Your task to perform on an android device: turn off data saver in the chrome app Image 0: 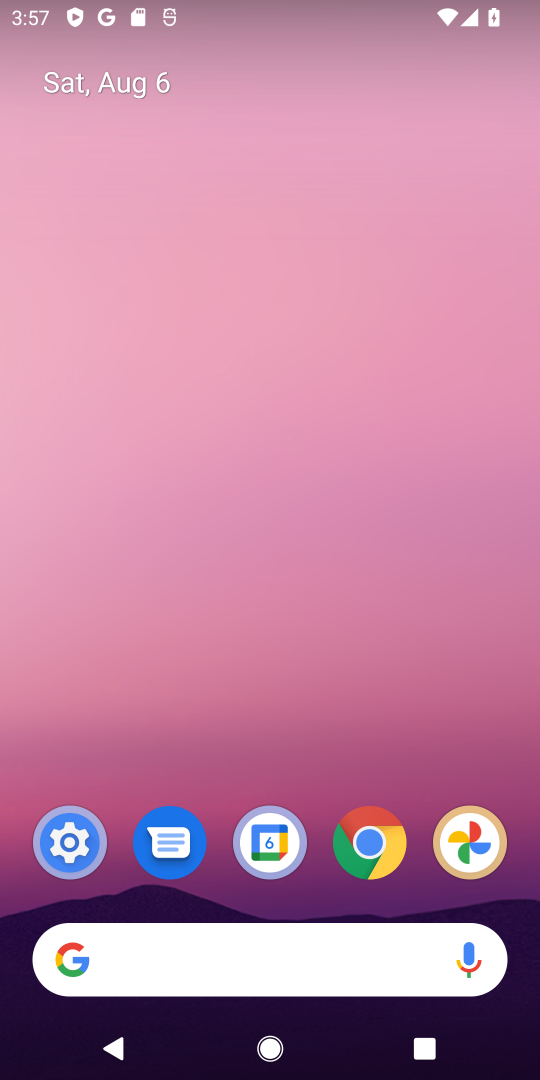
Step 0: click (349, 843)
Your task to perform on an android device: turn off data saver in the chrome app Image 1: 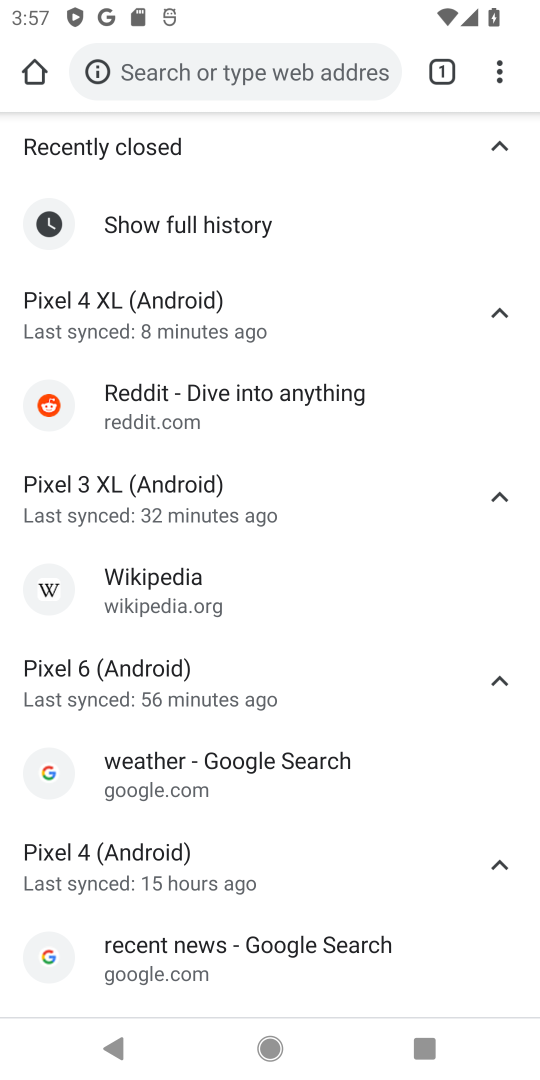
Step 1: click (495, 70)
Your task to perform on an android device: turn off data saver in the chrome app Image 2: 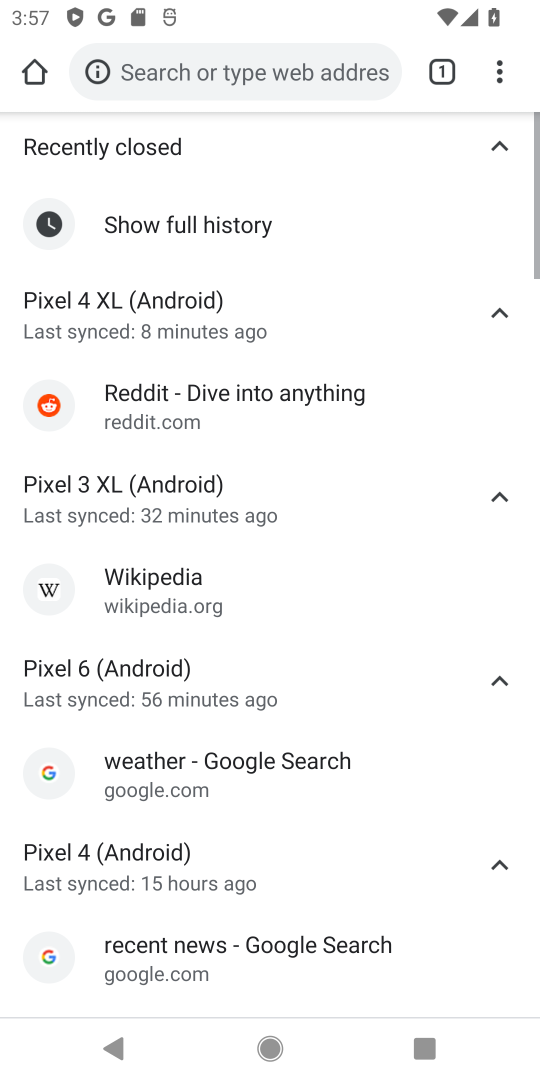
Step 2: click (499, 69)
Your task to perform on an android device: turn off data saver in the chrome app Image 3: 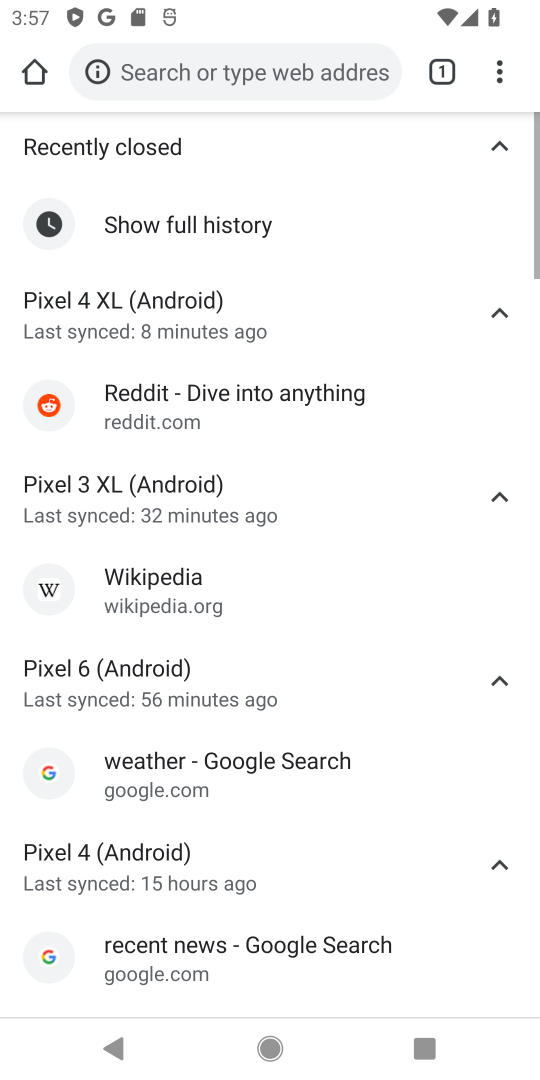
Step 3: click (499, 69)
Your task to perform on an android device: turn off data saver in the chrome app Image 4: 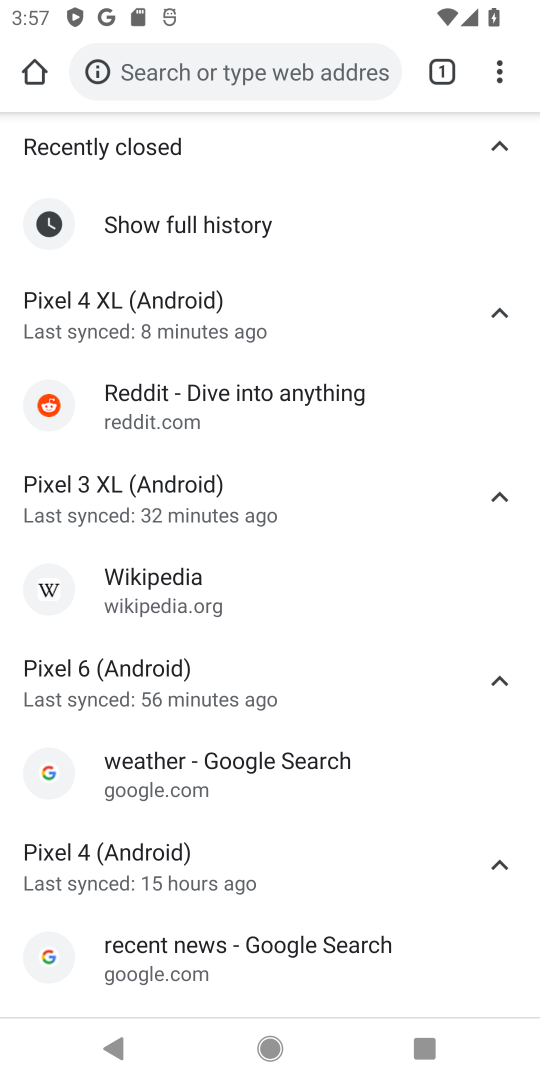
Step 4: click (499, 69)
Your task to perform on an android device: turn off data saver in the chrome app Image 5: 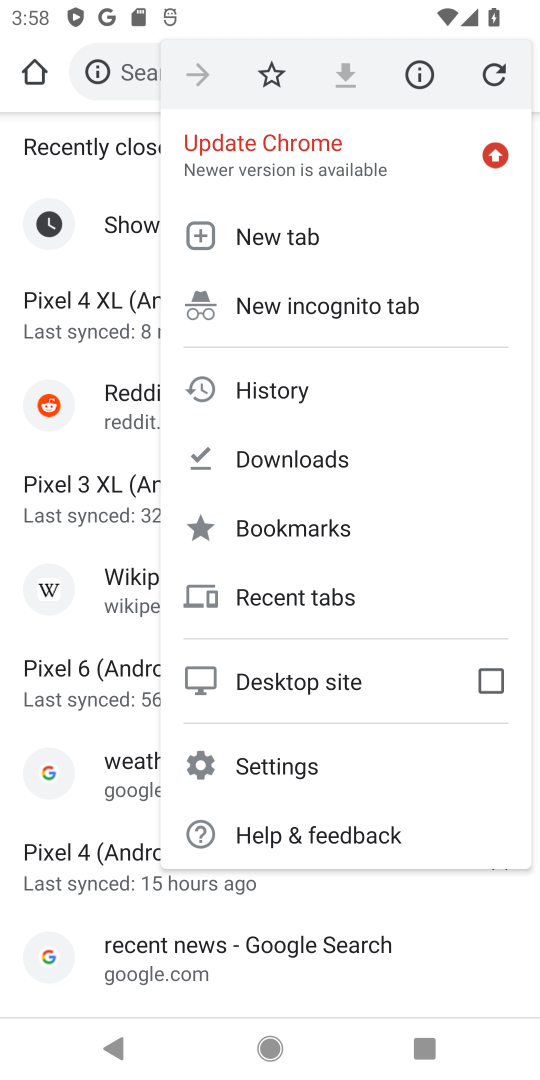
Step 5: click (264, 759)
Your task to perform on an android device: turn off data saver in the chrome app Image 6: 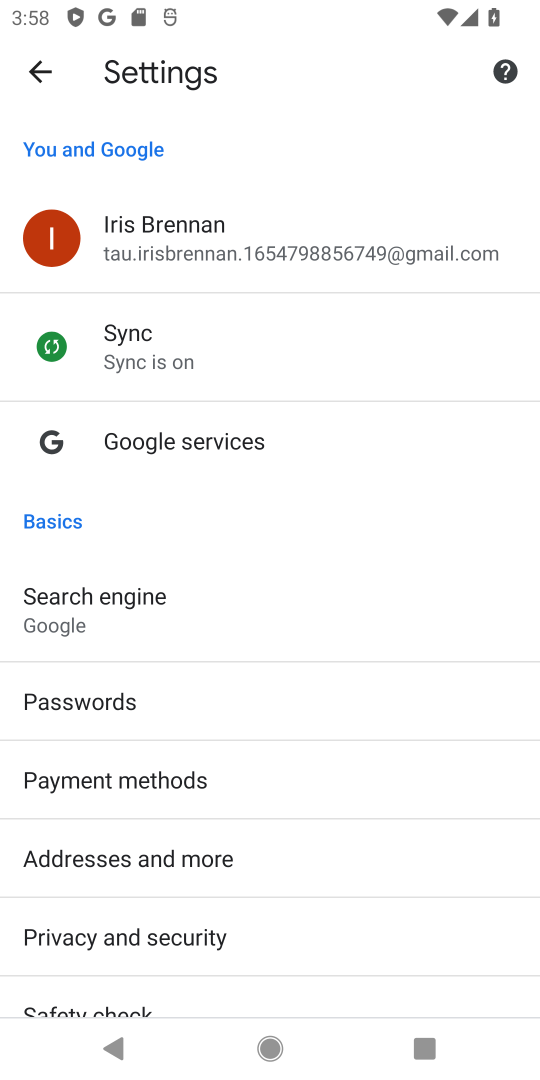
Step 6: drag from (348, 949) to (337, 400)
Your task to perform on an android device: turn off data saver in the chrome app Image 7: 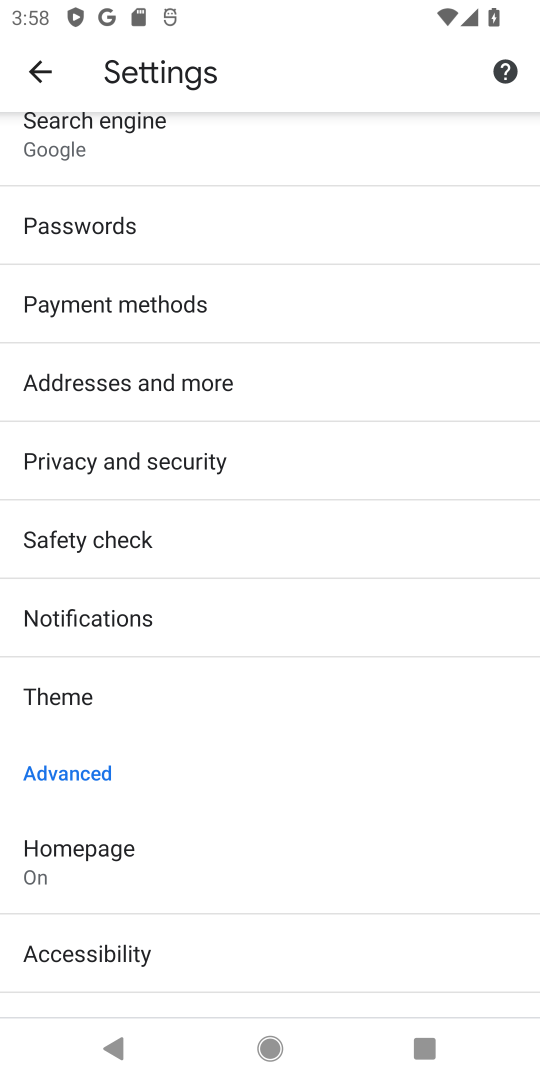
Step 7: drag from (341, 777) to (360, 459)
Your task to perform on an android device: turn off data saver in the chrome app Image 8: 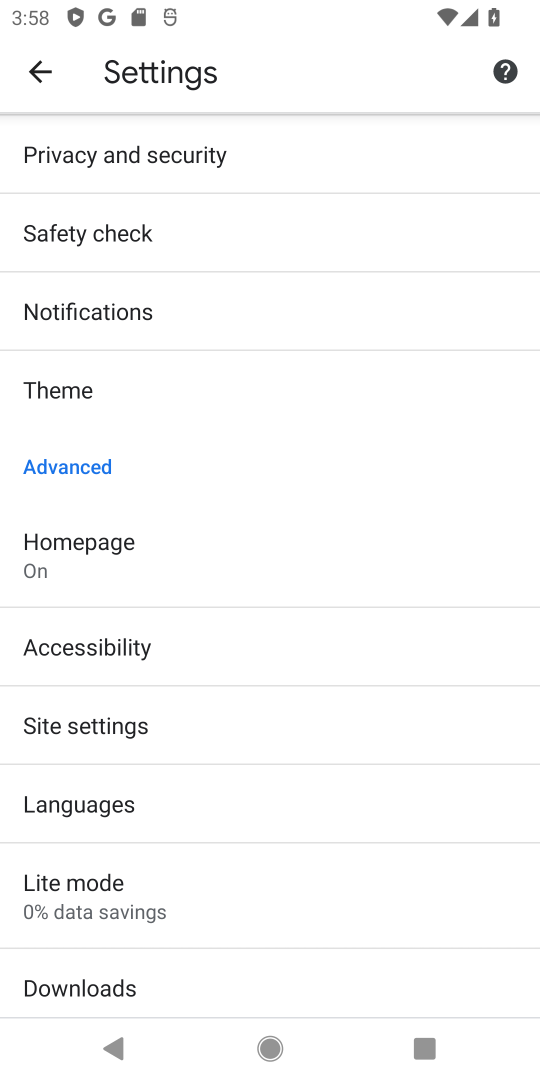
Step 8: click (96, 883)
Your task to perform on an android device: turn off data saver in the chrome app Image 9: 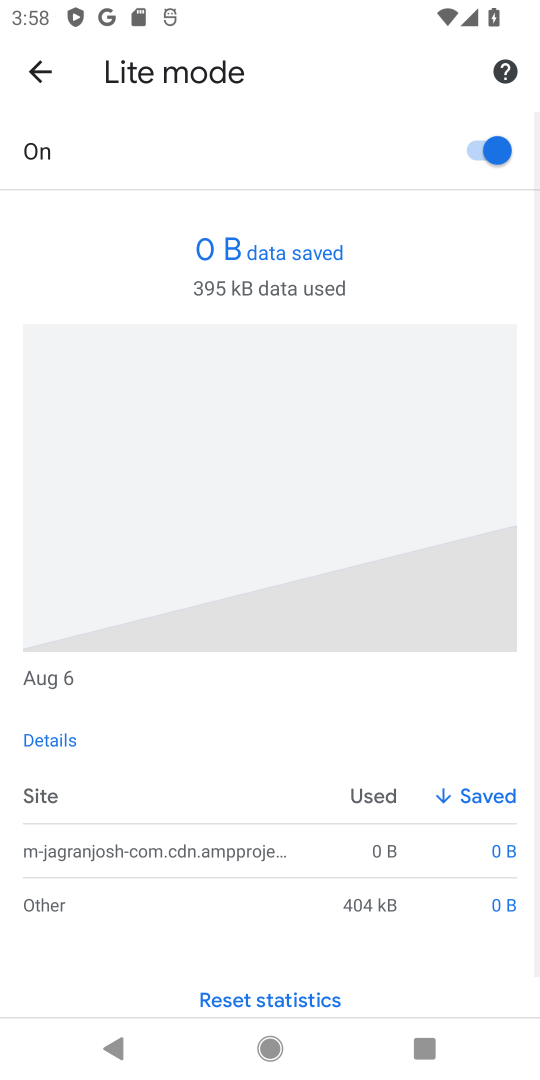
Step 9: click (469, 155)
Your task to perform on an android device: turn off data saver in the chrome app Image 10: 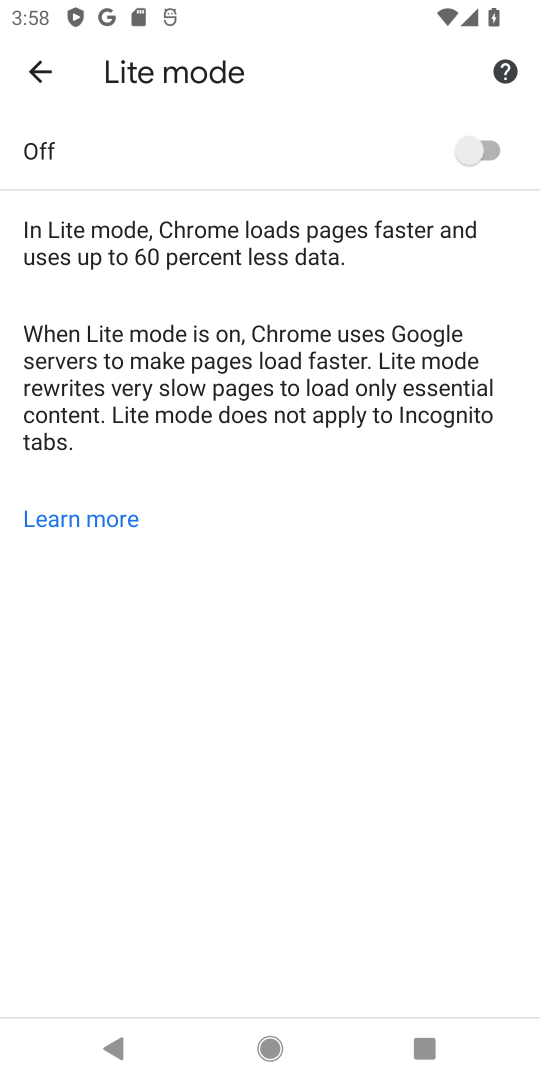
Step 10: task complete